Your task to perform on an android device: check google app version Image 0: 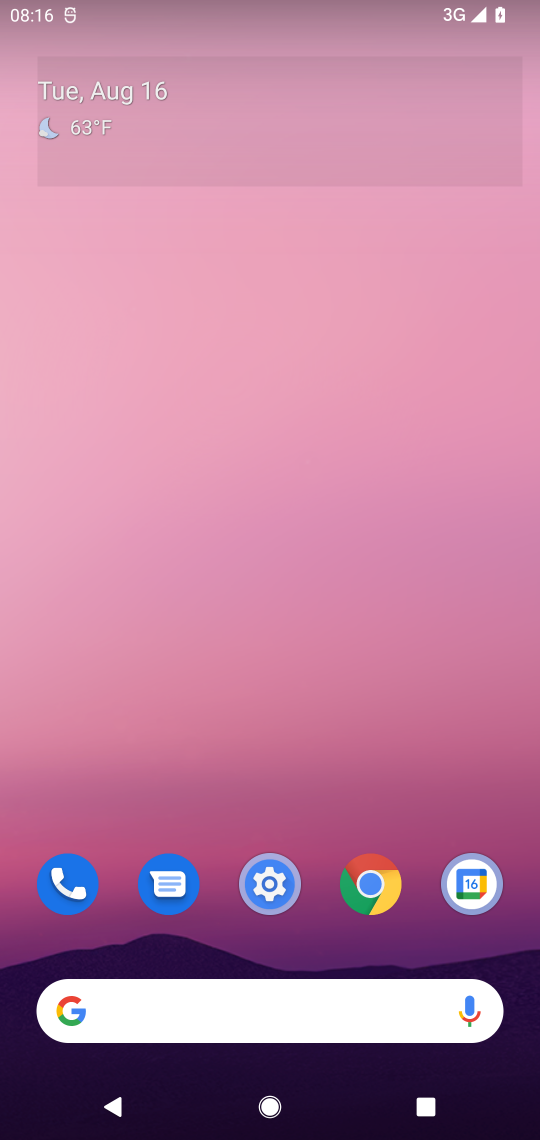
Step 0: press home button
Your task to perform on an android device: check google app version Image 1: 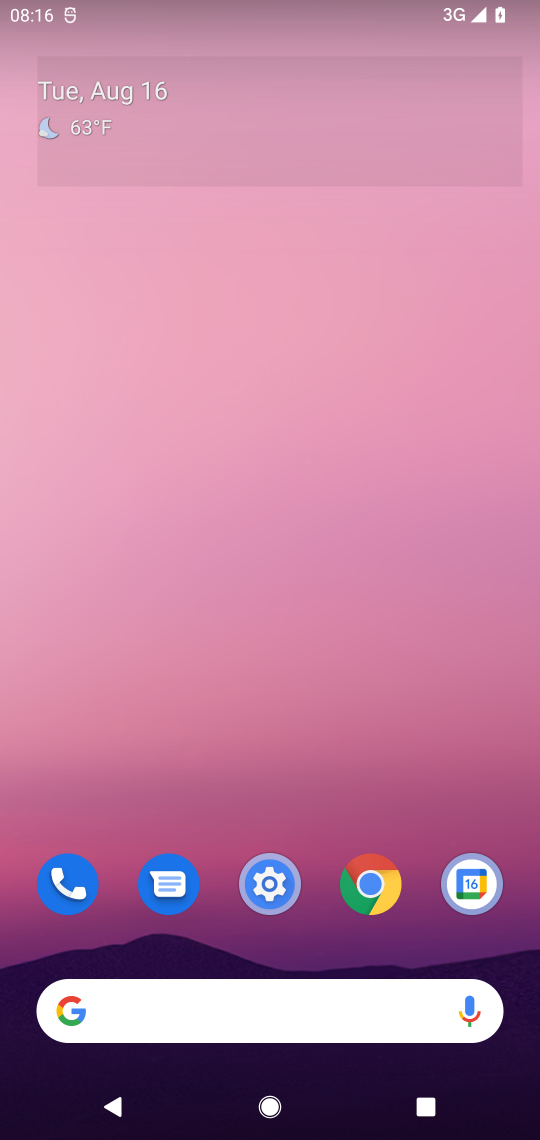
Step 1: click (257, 102)
Your task to perform on an android device: check google app version Image 2: 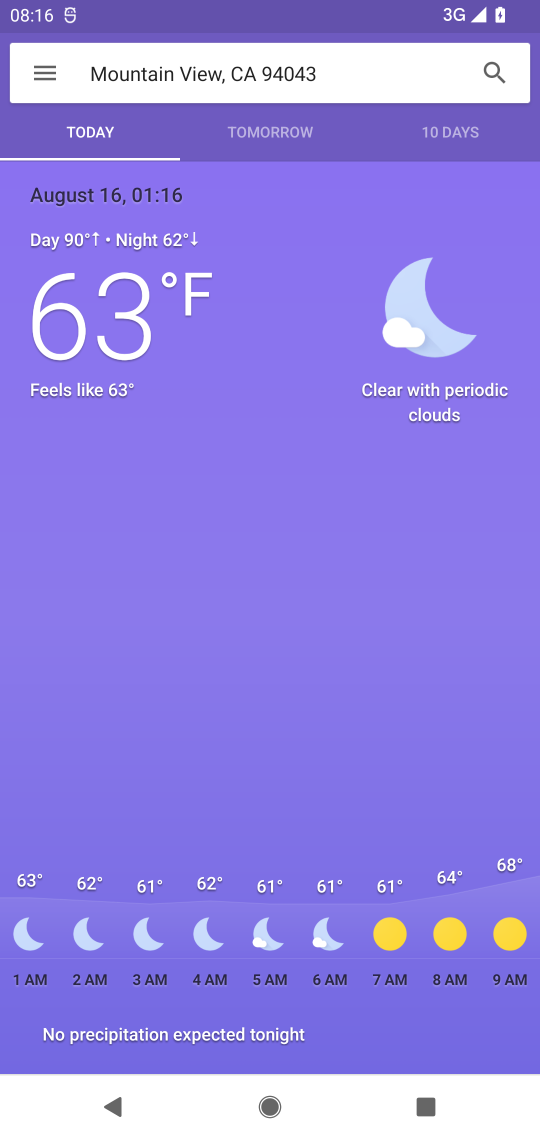
Step 2: press home button
Your task to perform on an android device: check google app version Image 3: 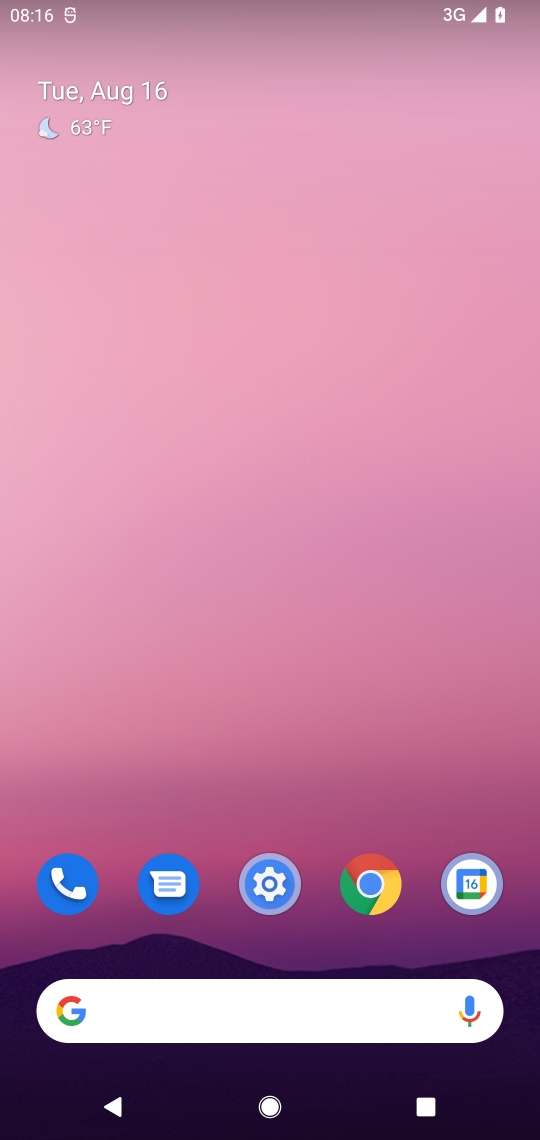
Step 3: drag from (337, 552) to (299, 104)
Your task to perform on an android device: check google app version Image 4: 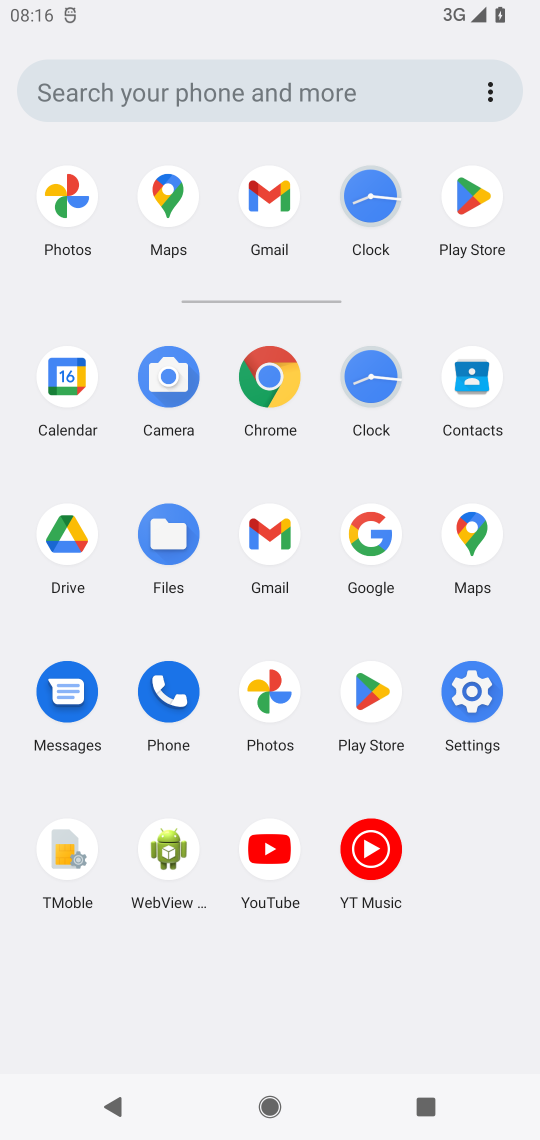
Step 4: click (374, 535)
Your task to perform on an android device: check google app version Image 5: 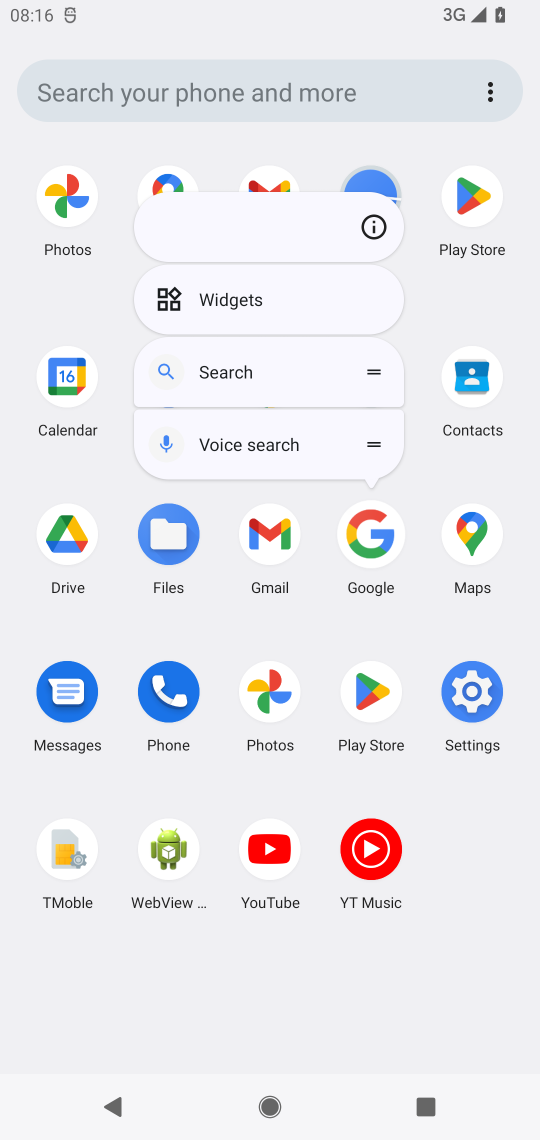
Step 5: click (370, 219)
Your task to perform on an android device: check google app version Image 6: 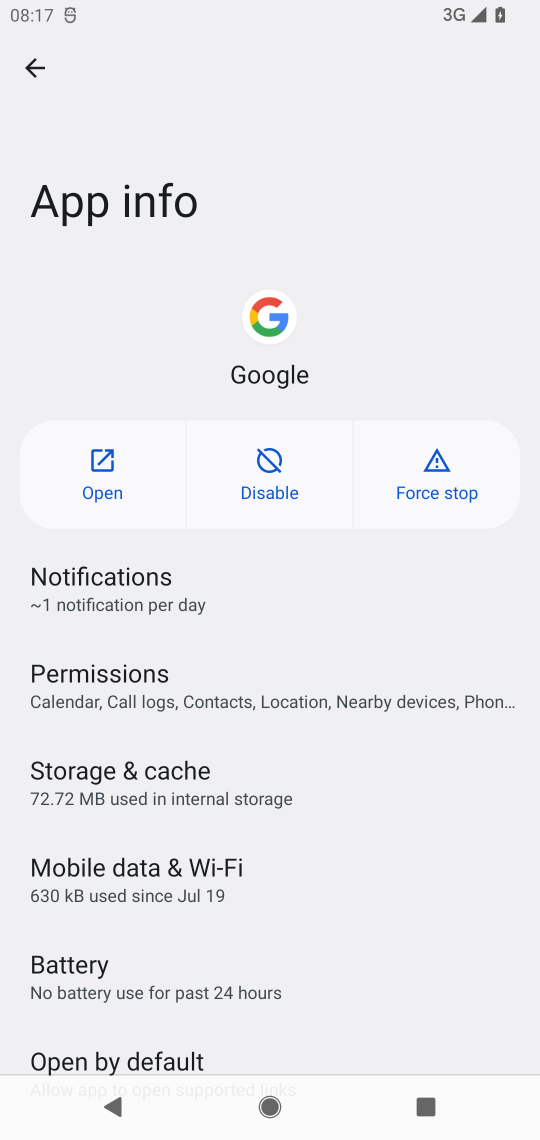
Step 6: task complete